Your task to perform on an android device: toggle notification dots Image 0: 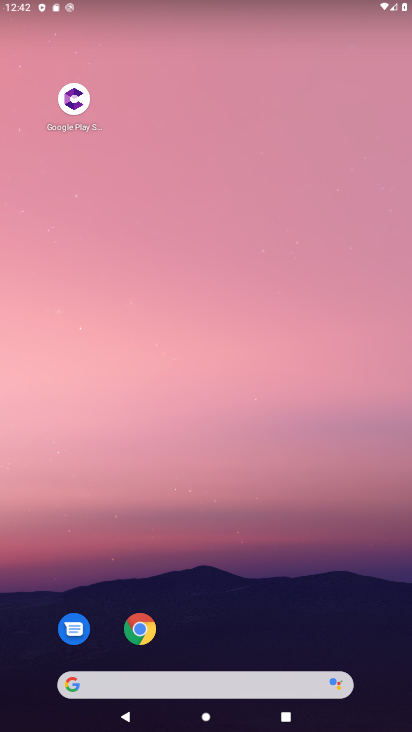
Step 0: drag from (203, 631) to (186, 125)
Your task to perform on an android device: toggle notification dots Image 1: 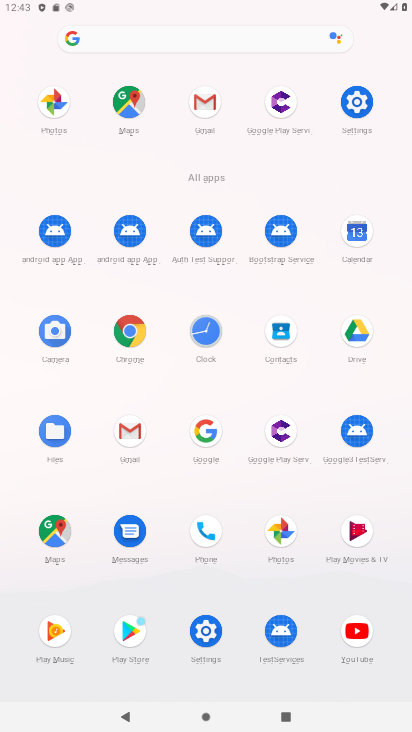
Step 1: click (355, 103)
Your task to perform on an android device: toggle notification dots Image 2: 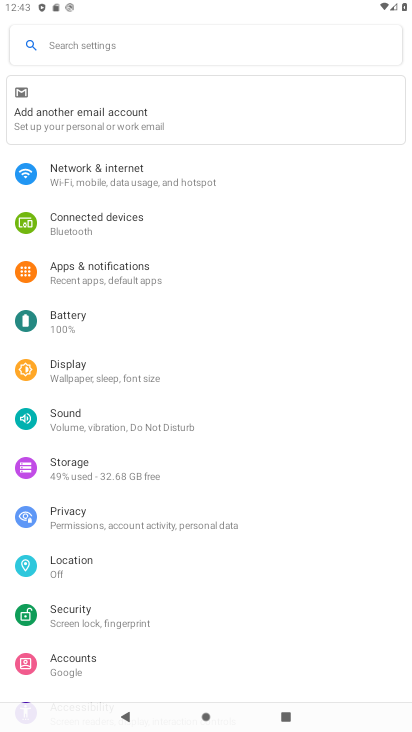
Step 2: click (121, 280)
Your task to perform on an android device: toggle notification dots Image 3: 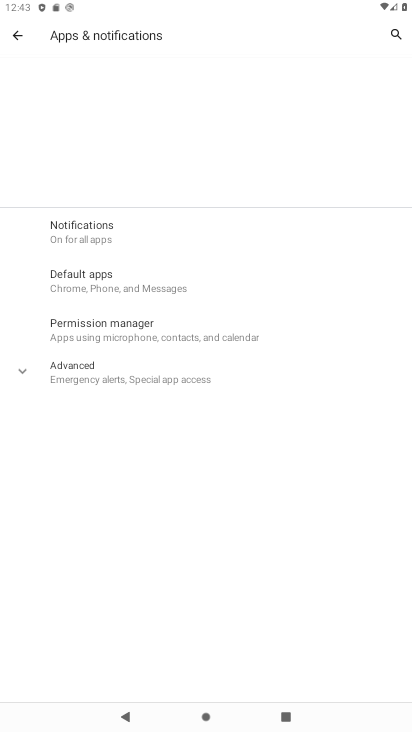
Step 3: click (104, 232)
Your task to perform on an android device: toggle notification dots Image 4: 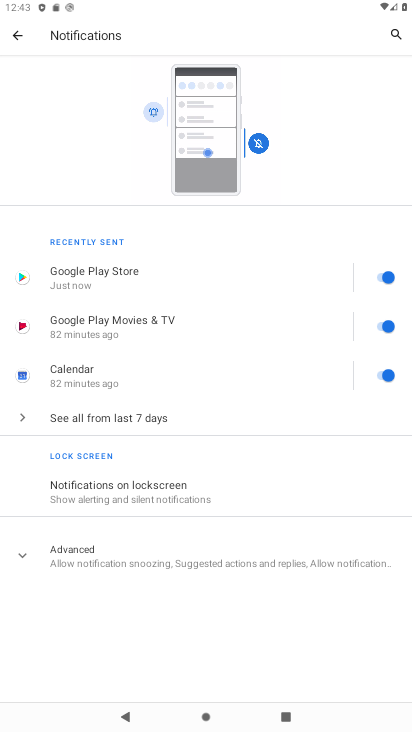
Step 4: click (90, 556)
Your task to perform on an android device: toggle notification dots Image 5: 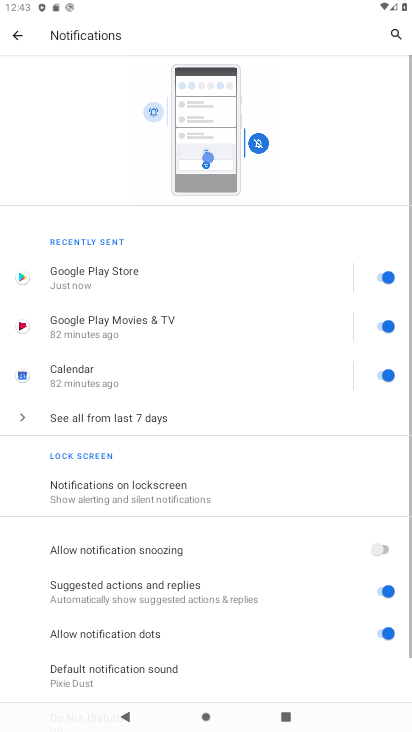
Step 5: drag from (260, 397) to (254, 282)
Your task to perform on an android device: toggle notification dots Image 6: 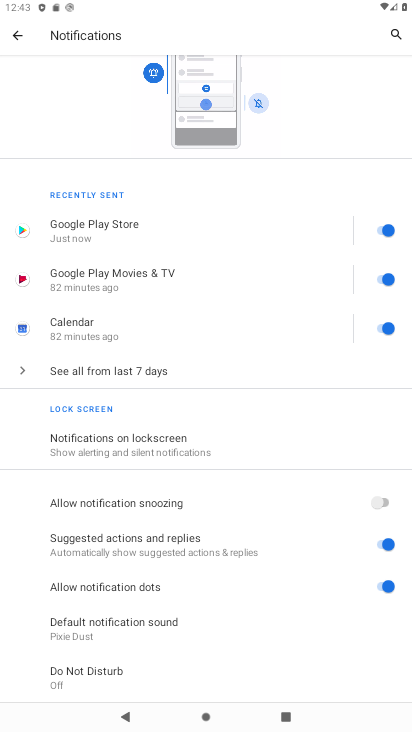
Step 6: click (382, 586)
Your task to perform on an android device: toggle notification dots Image 7: 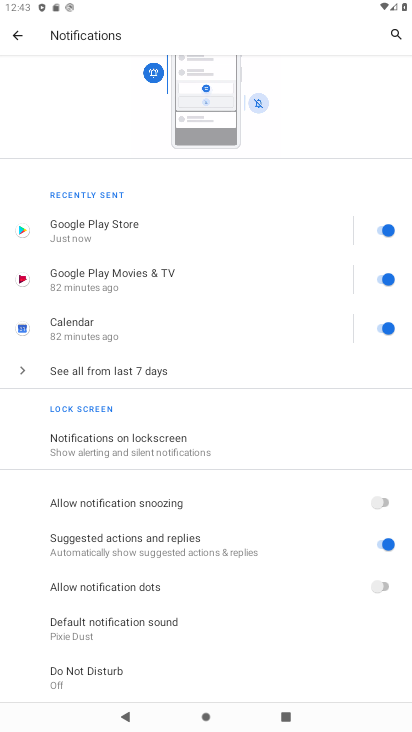
Step 7: task complete